Your task to perform on an android device: turn off javascript in the chrome app Image 0: 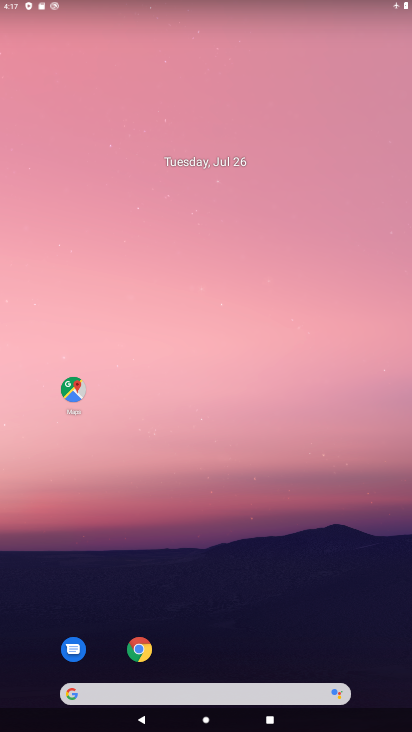
Step 0: click (143, 656)
Your task to perform on an android device: turn off javascript in the chrome app Image 1: 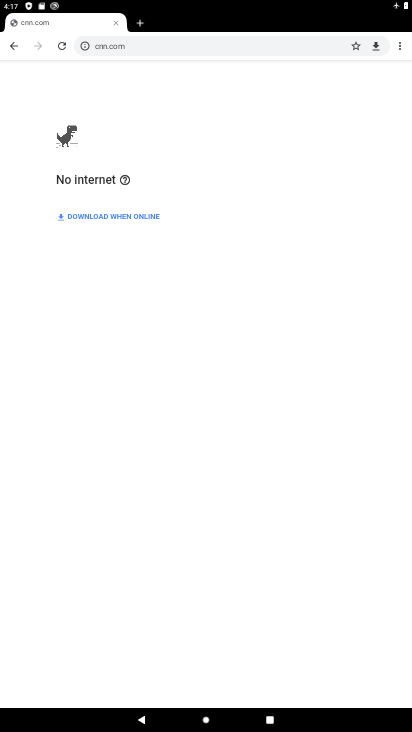
Step 1: click (396, 43)
Your task to perform on an android device: turn off javascript in the chrome app Image 2: 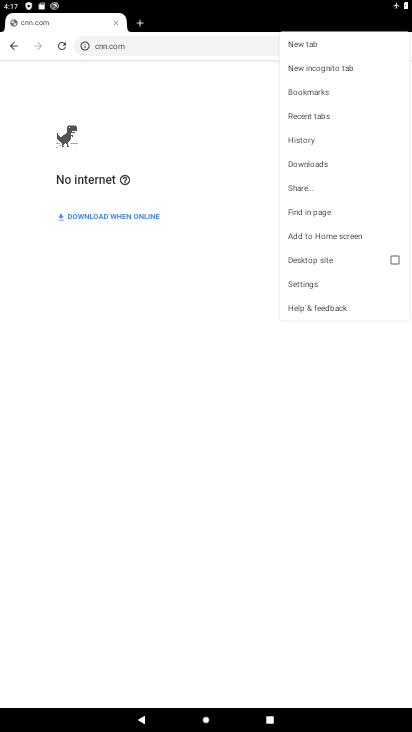
Step 2: click (332, 279)
Your task to perform on an android device: turn off javascript in the chrome app Image 3: 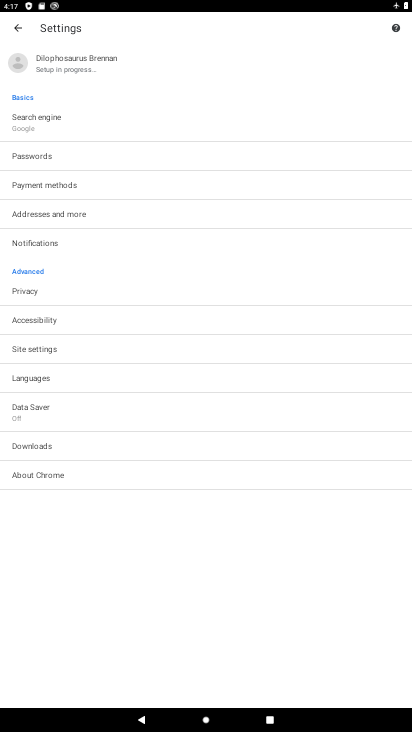
Step 3: click (52, 351)
Your task to perform on an android device: turn off javascript in the chrome app Image 4: 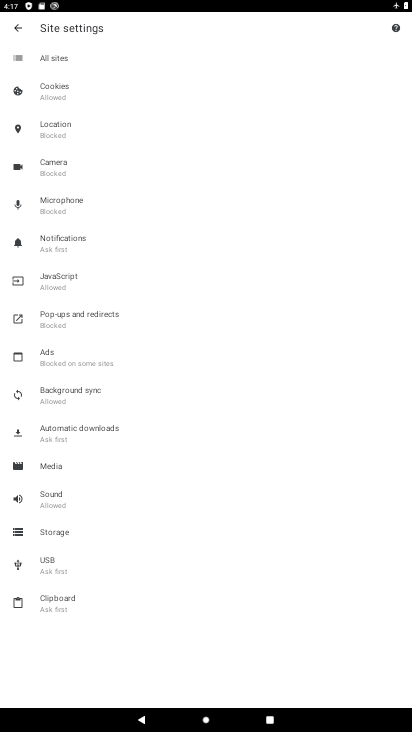
Step 4: click (87, 280)
Your task to perform on an android device: turn off javascript in the chrome app Image 5: 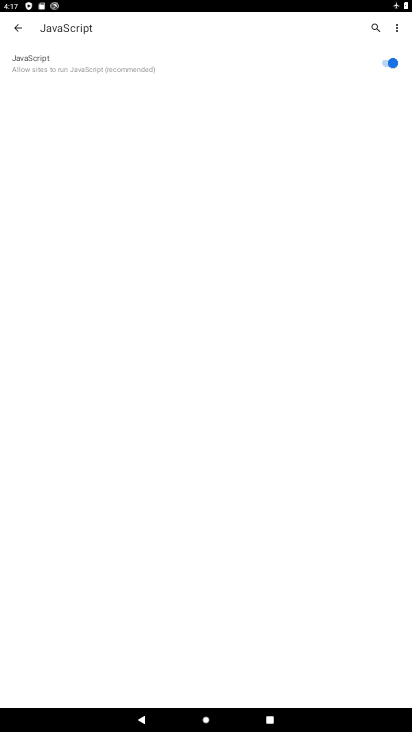
Step 5: click (393, 69)
Your task to perform on an android device: turn off javascript in the chrome app Image 6: 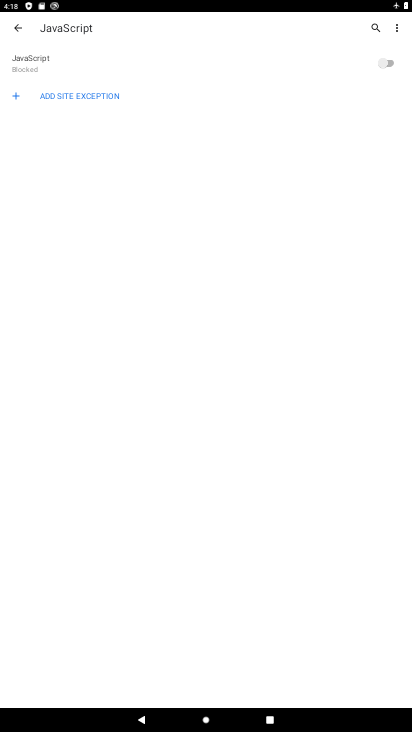
Step 6: task complete